Your task to perform on an android device: Open network settings Image 0: 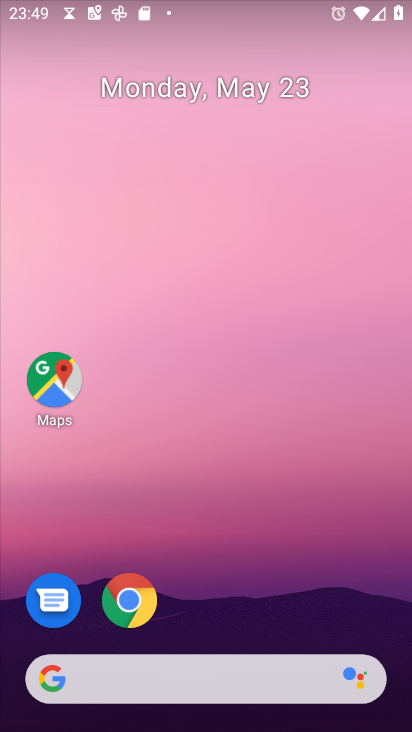
Step 0: drag from (208, 723) to (199, 132)
Your task to perform on an android device: Open network settings Image 1: 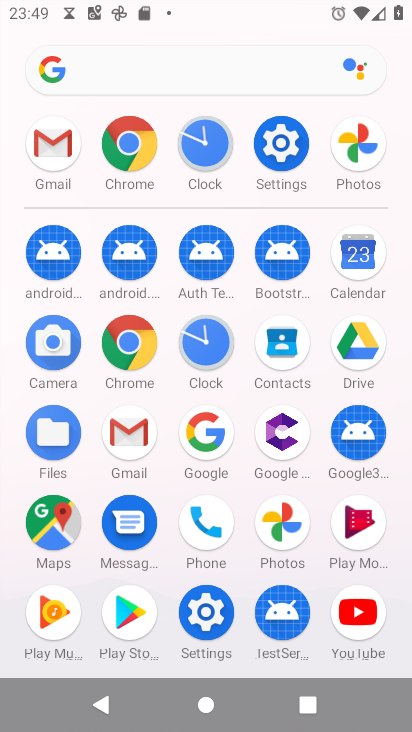
Step 1: click (285, 148)
Your task to perform on an android device: Open network settings Image 2: 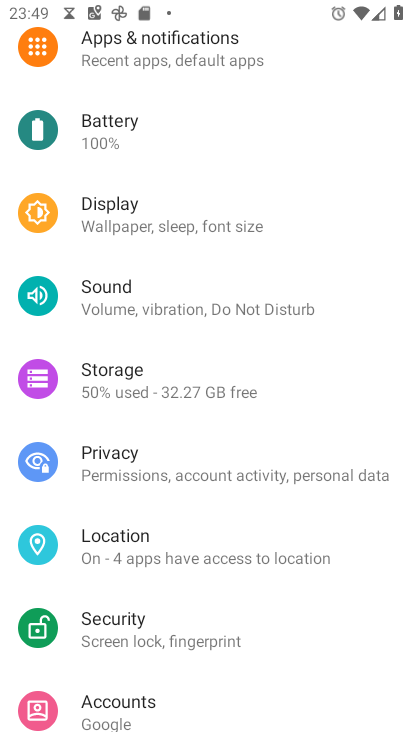
Step 2: drag from (243, 147) to (248, 653)
Your task to perform on an android device: Open network settings Image 3: 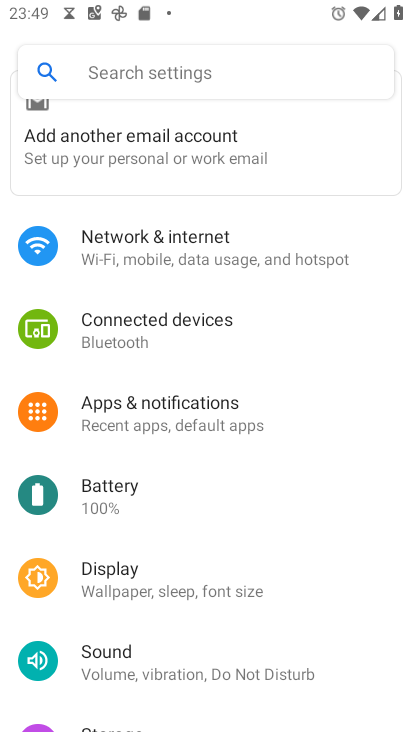
Step 3: click (170, 245)
Your task to perform on an android device: Open network settings Image 4: 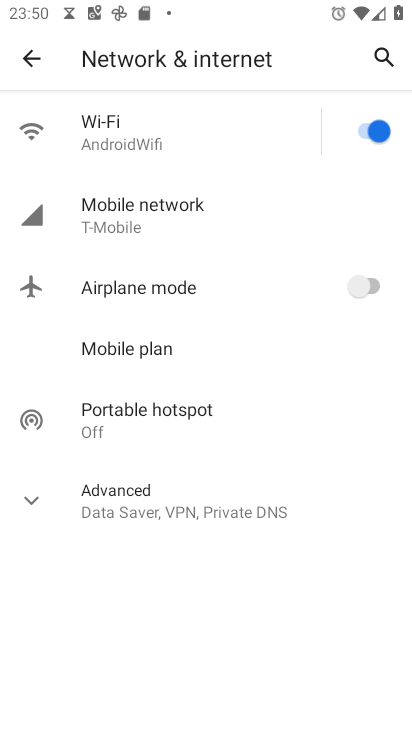
Step 4: click (119, 217)
Your task to perform on an android device: Open network settings Image 5: 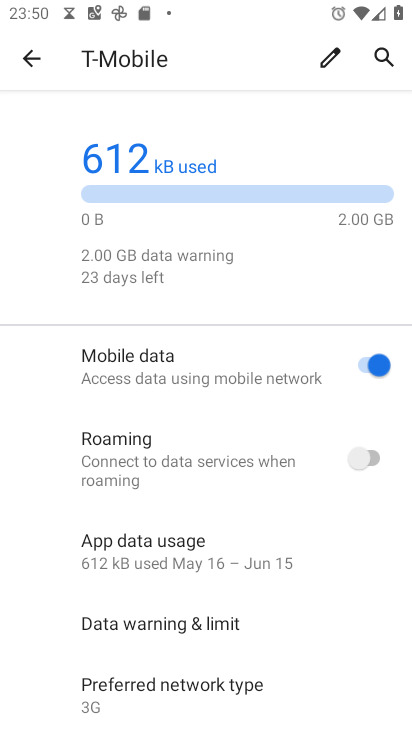
Step 5: task complete